Your task to perform on an android device: Add "asus rog" to the cart on newegg, then select checkout. Image 0: 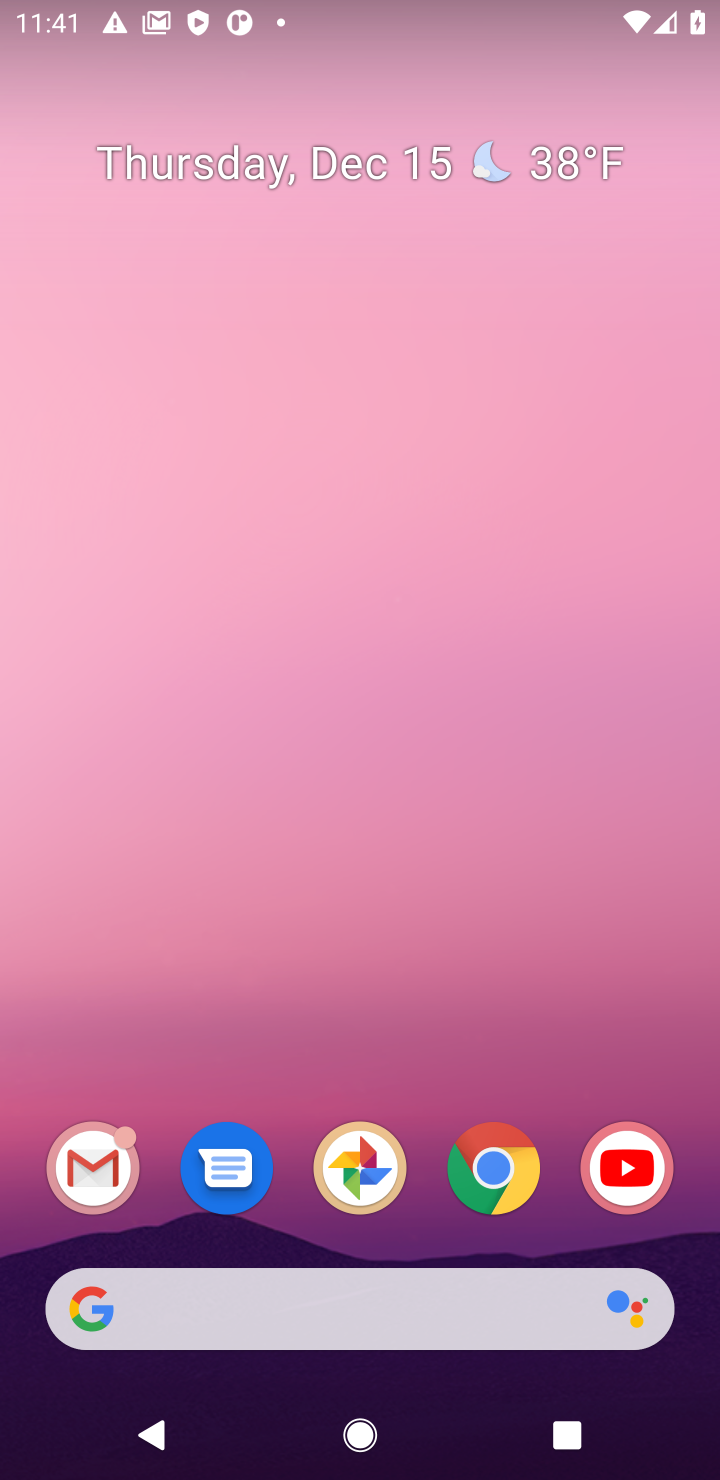
Step 0: click (503, 1181)
Your task to perform on an android device: Add "asus rog" to the cart on newegg, then select checkout. Image 1: 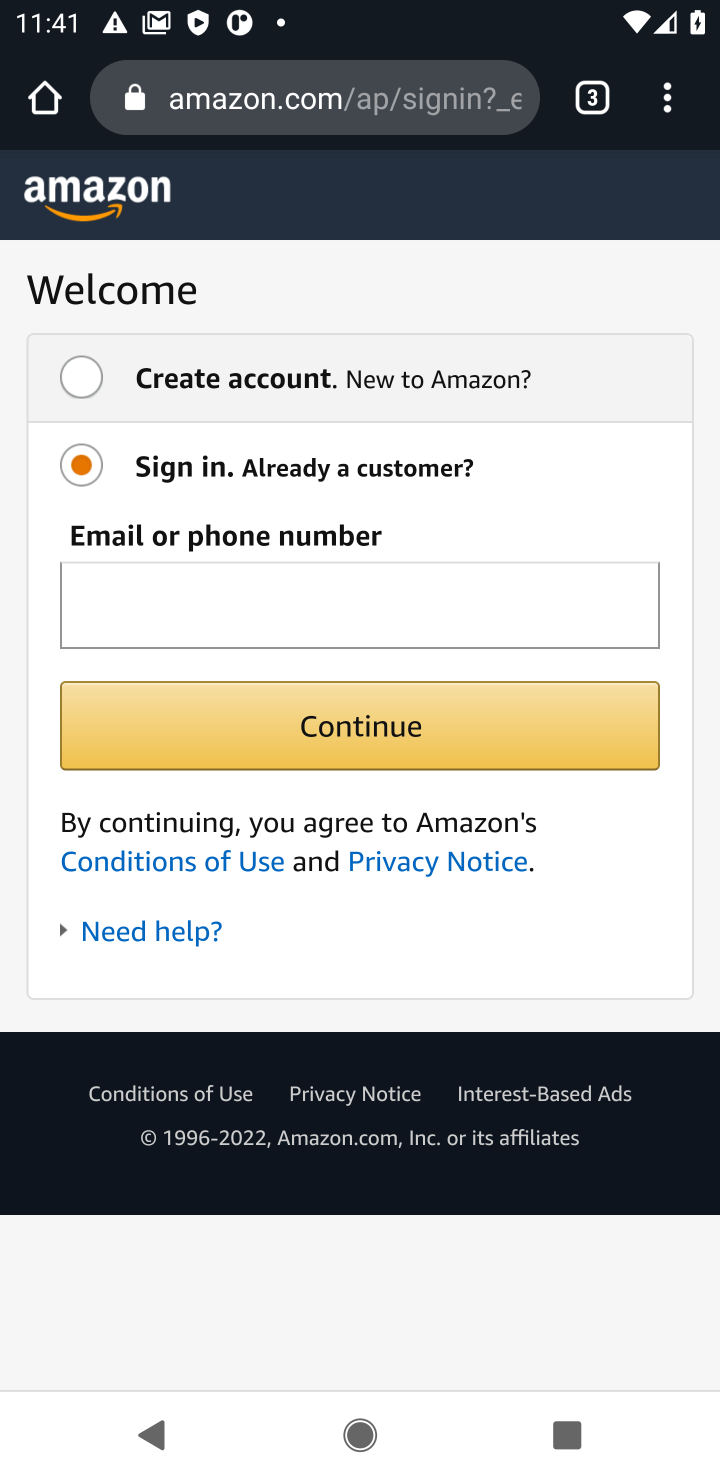
Step 1: click (337, 99)
Your task to perform on an android device: Add "asus rog" to the cart on newegg, then select checkout. Image 2: 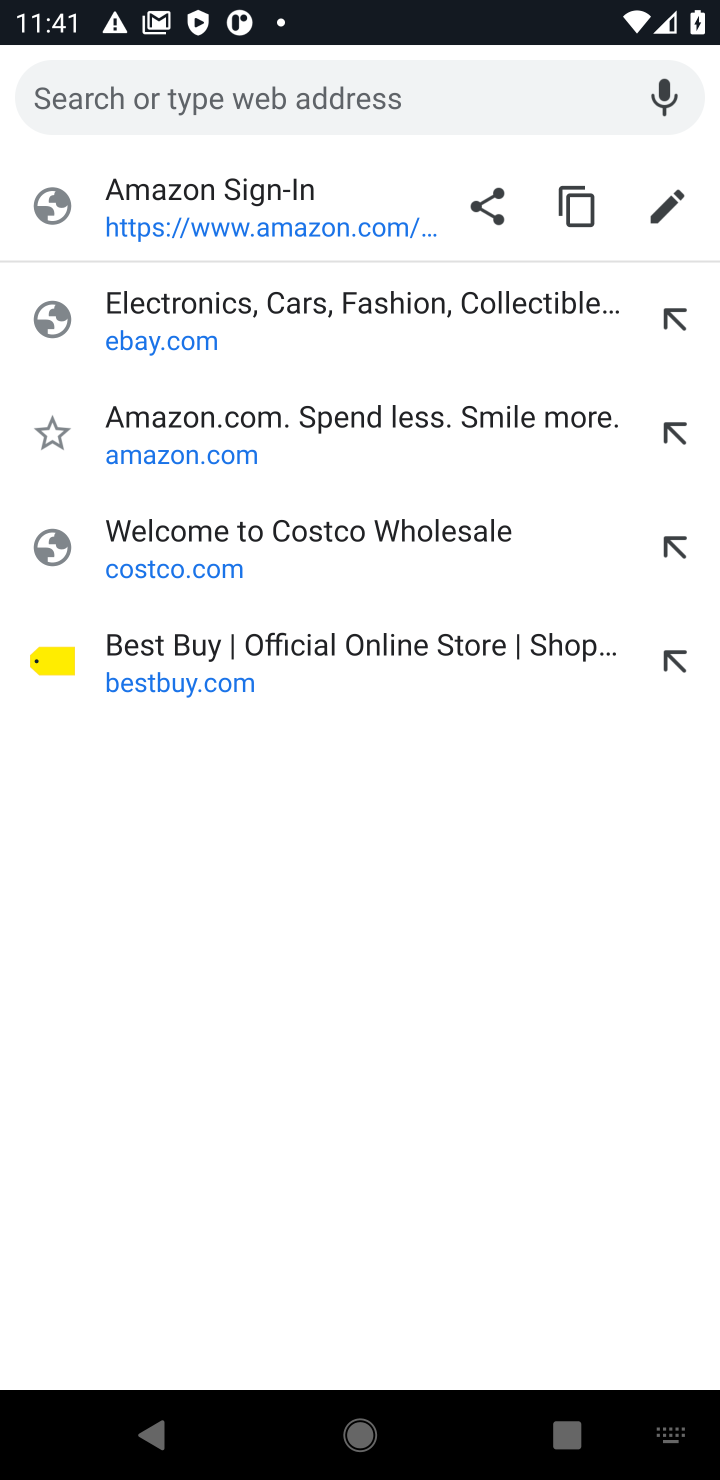
Step 2: type "newegg"
Your task to perform on an android device: Add "asus rog" to the cart on newegg, then select checkout. Image 3: 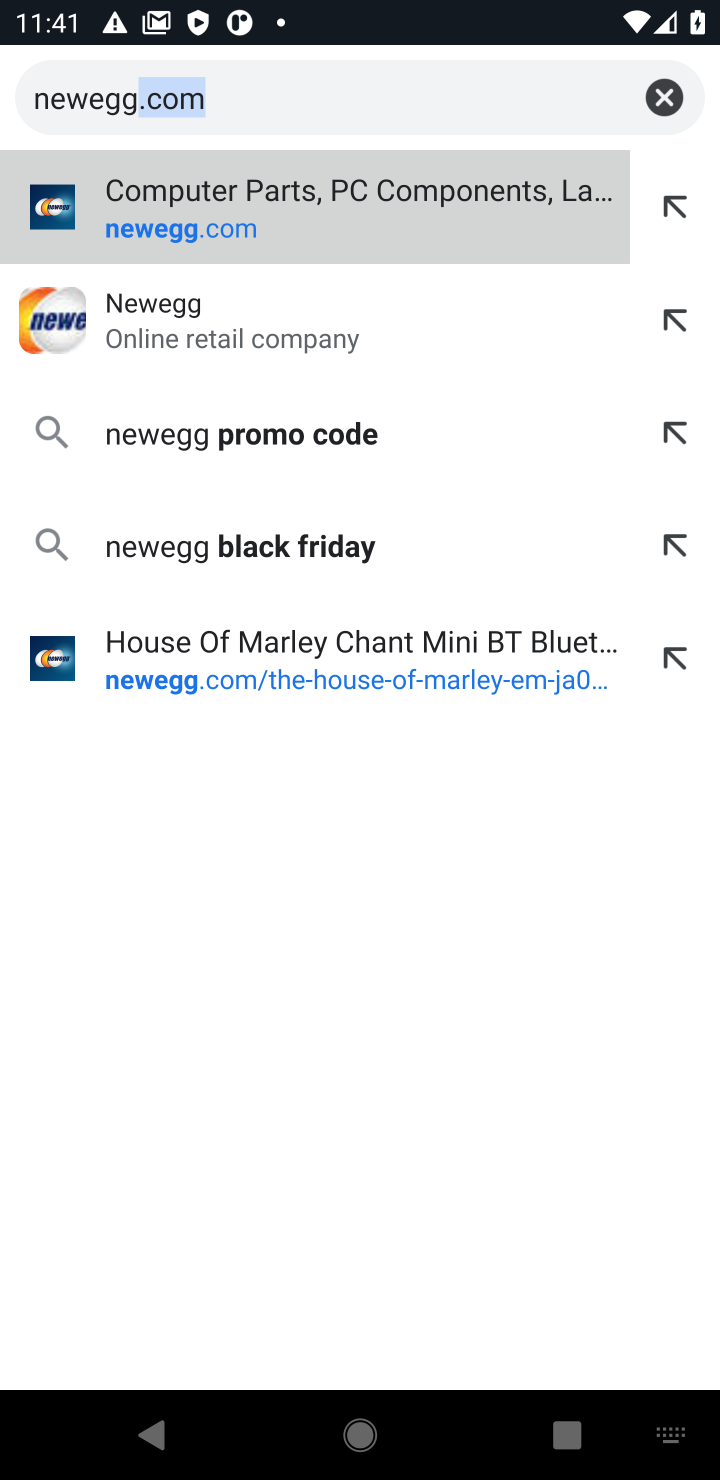
Step 3: click (269, 202)
Your task to perform on an android device: Add "asus rog" to the cart on newegg, then select checkout. Image 4: 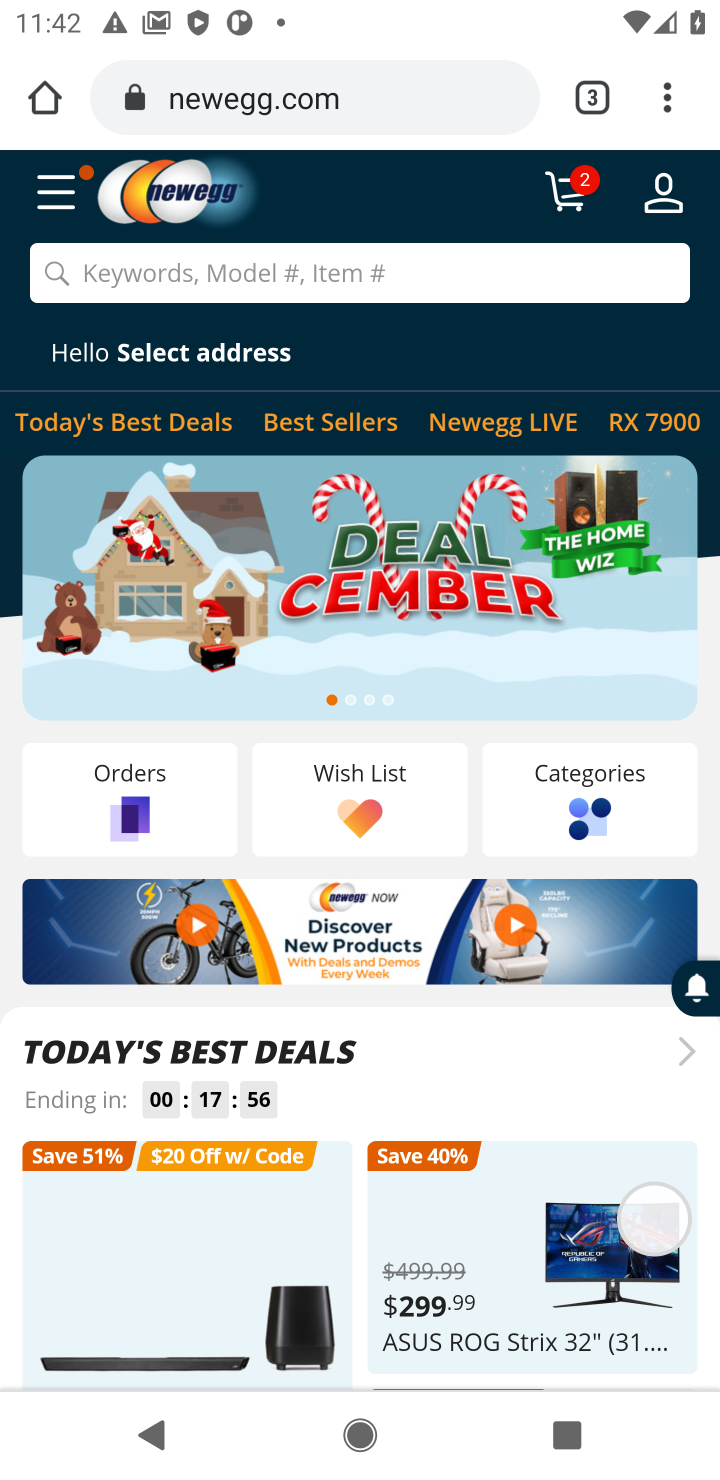
Step 4: click (287, 291)
Your task to perform on an android device: Add "asus rog" to the cart on newegg, then select checkout. Image 5: 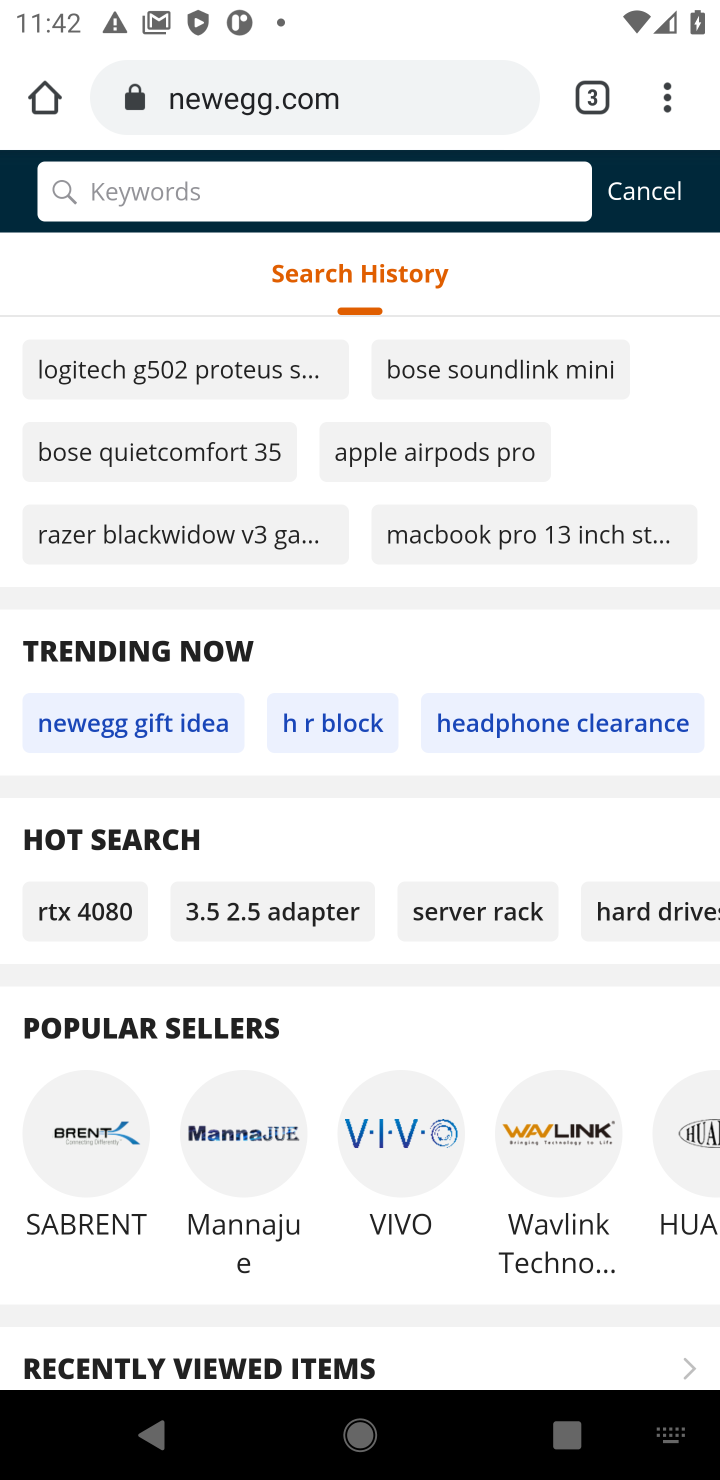
Step 5: type "asus rog"
Your task to perform on an android device: Add "asus rog" to the cart on newegg, then select checkout. Image 6: 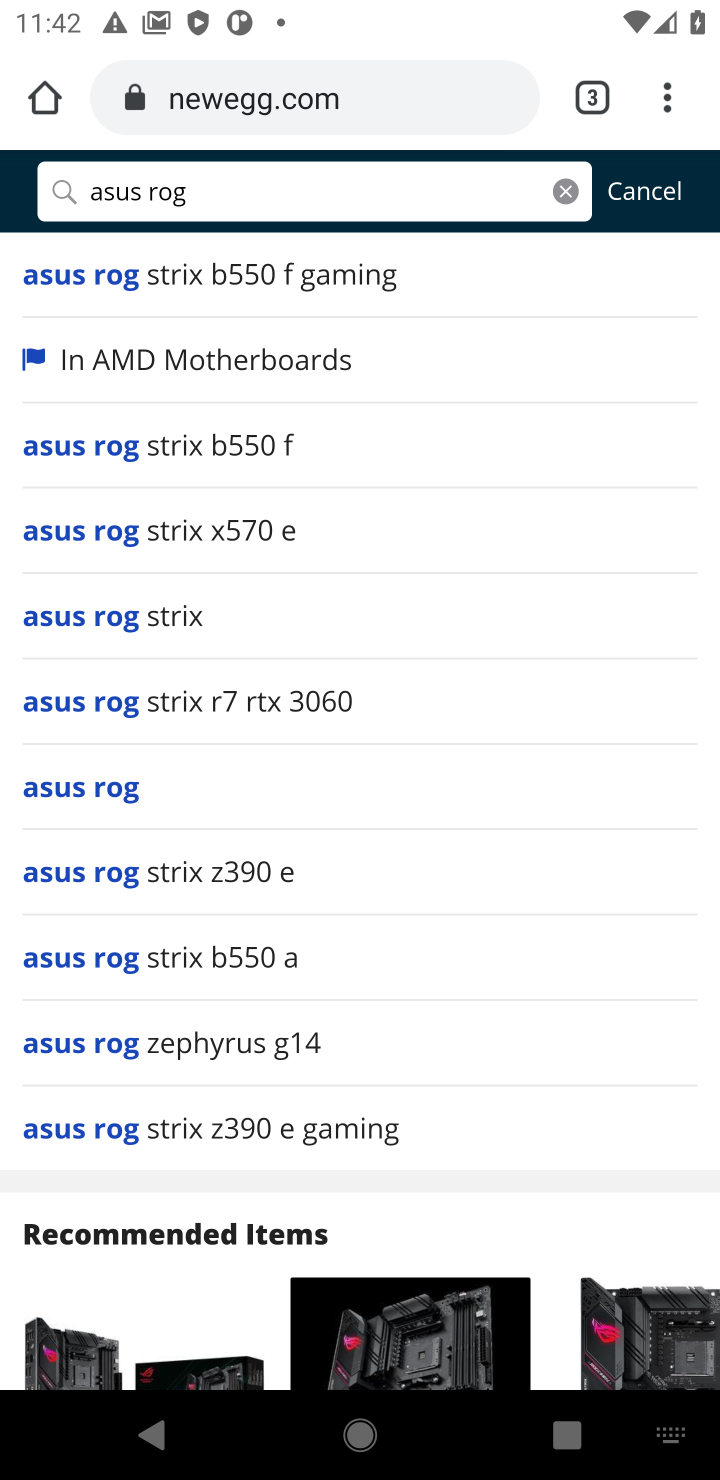
Step 6: click (182, 285)
Your task to perform on an android device: Add "asus rog" to the cart on newegg, then select checkout. Image 7: 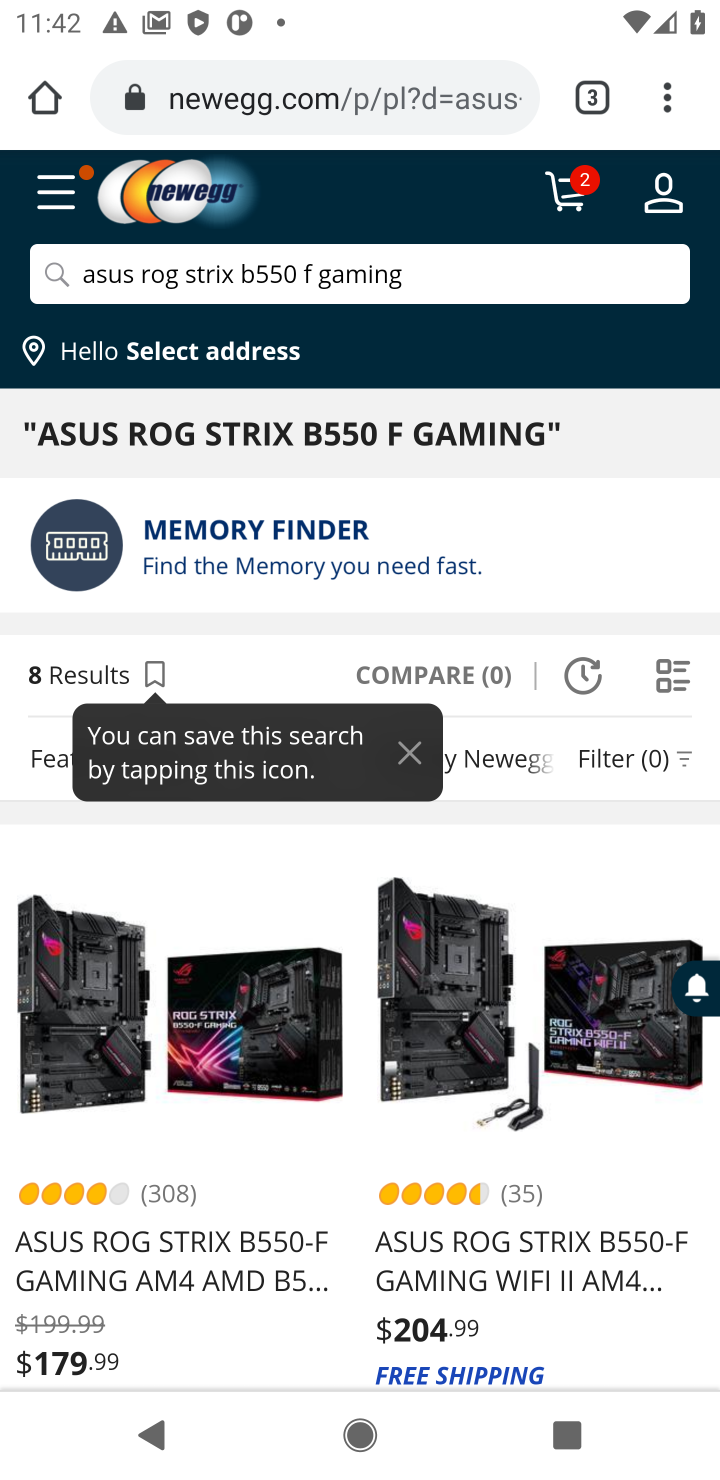
Step 7: click (195, 1058)
Your task to perform on an android device: Add "asus rog" to the cart on newegg, then select checkout. Image 8: 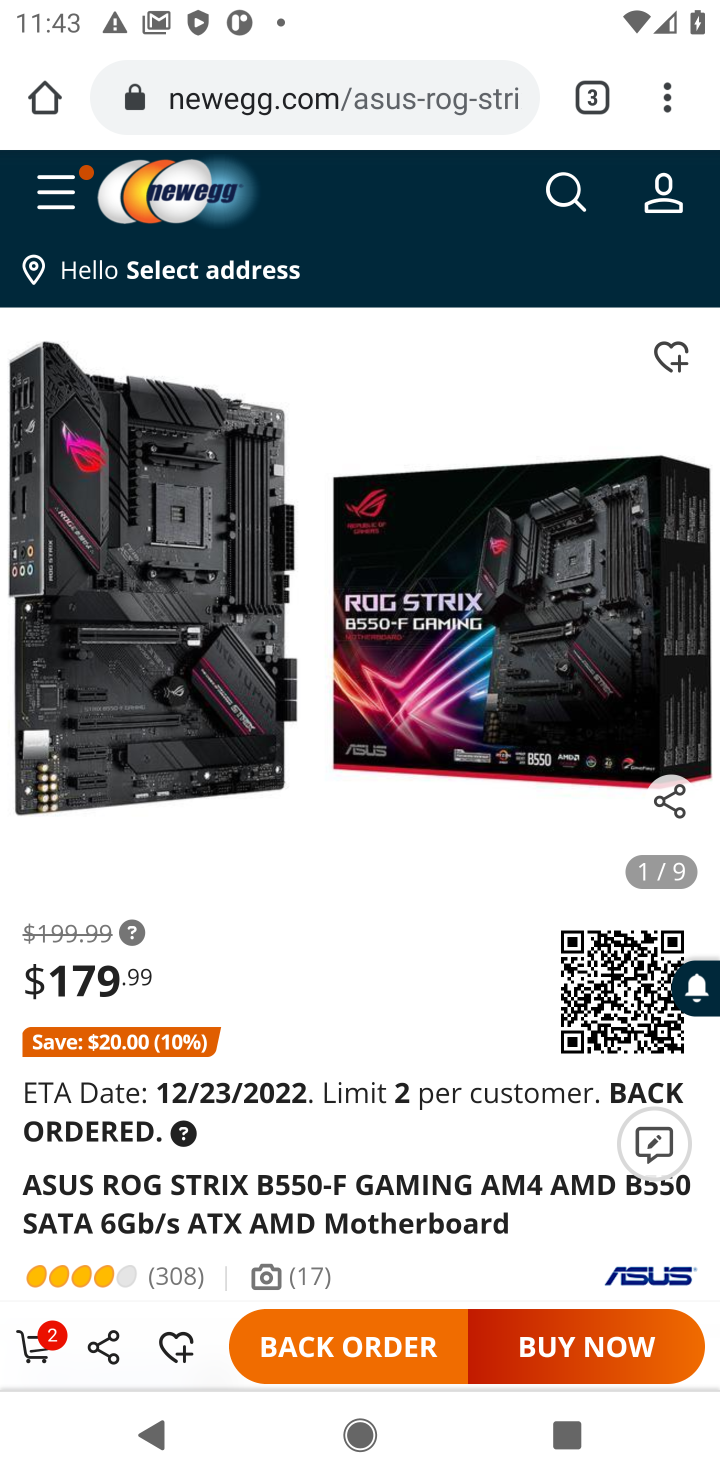
Step 8: click (44, 1331)
Your task to perform on an android device: Add "asus rog" to the cart on newegg, then select checkout. Image 9: 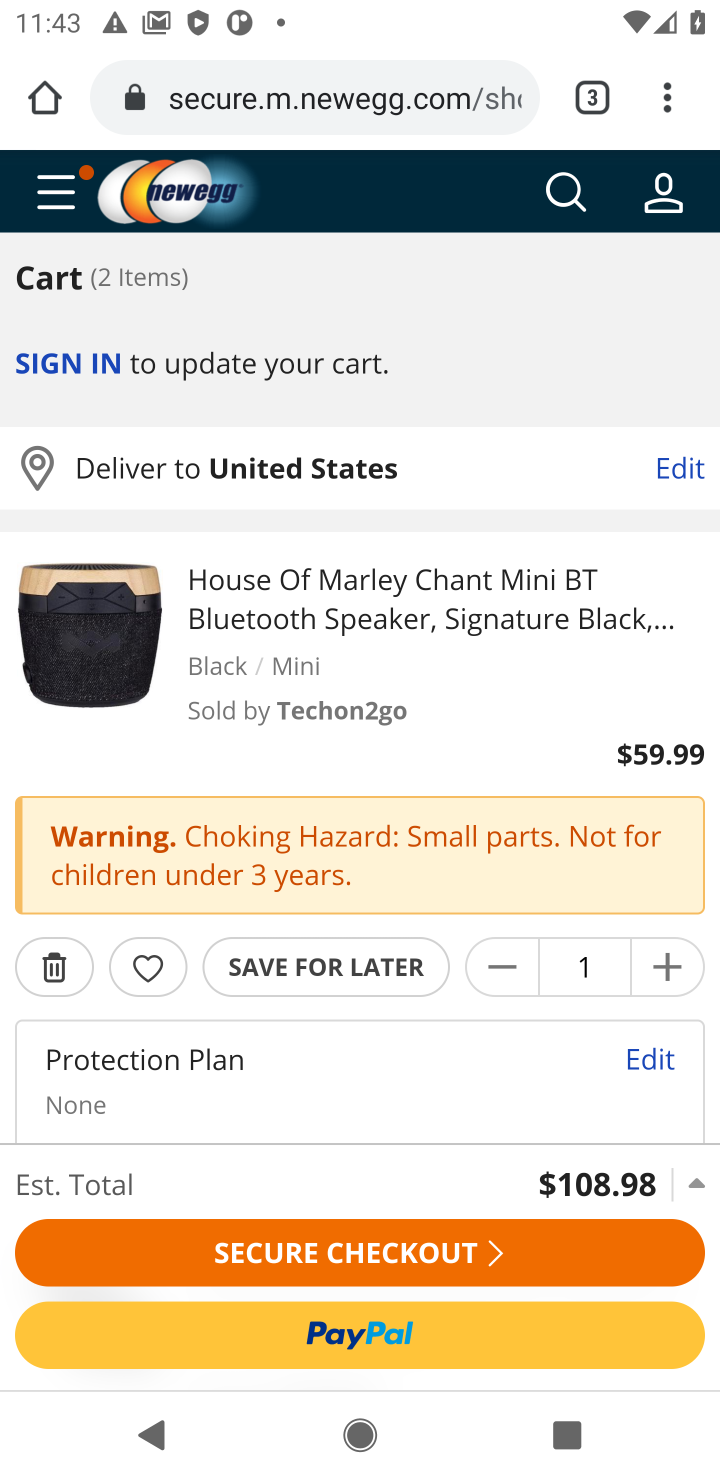
Step 9: click (333, 1320)
Your task to perform on an android device: Add "asus rog" to the cart on newegg, then select checkout. Image 10: 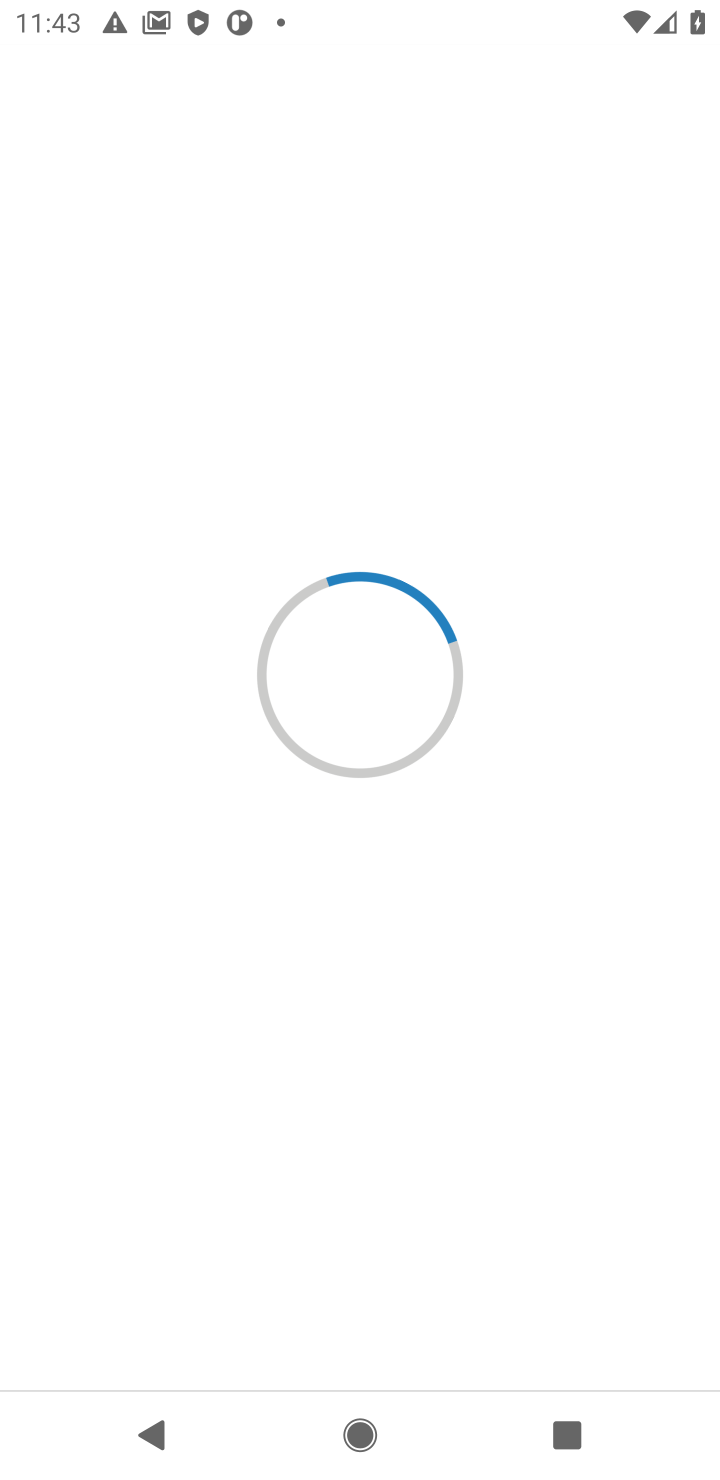
Step 10: task complete